Your task to perform on an android device: Do I have any events this weekend? Image 0: 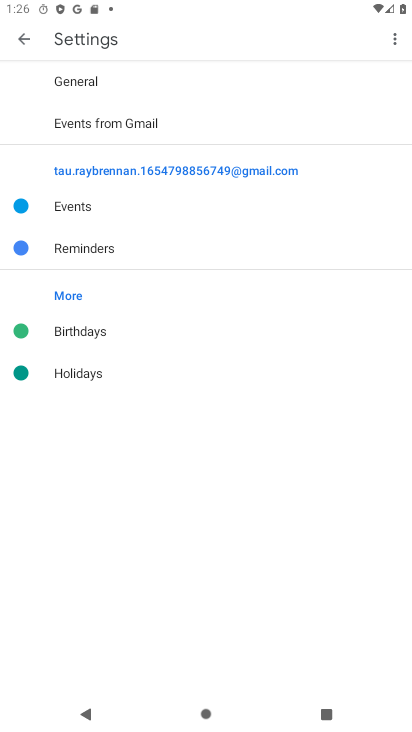
Step 0: press home button
Your task to perform on an android device: Do I have any events this weekend? Image 1: 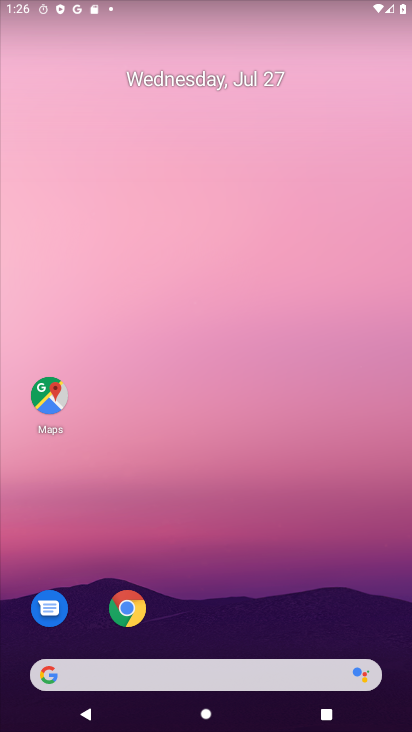
Step 1: drag from (194, 602) to (183, 107)
Your task to perform on an android device: Do I have any events this weekend? Image 2: 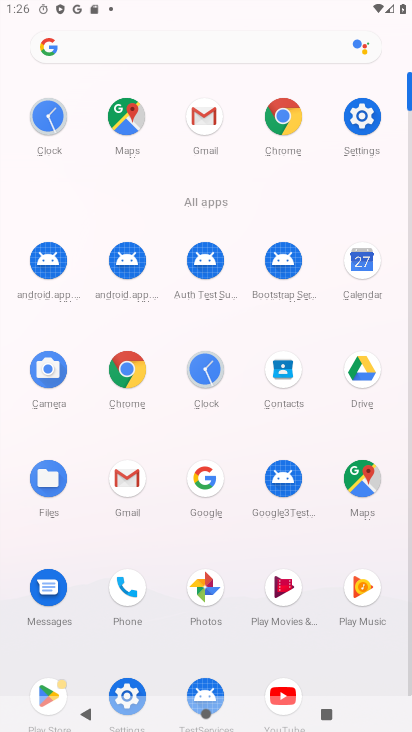
Step 2: click (360, 267)
Your task to perform on an android device: Do I have any events this weekend? Image 3: 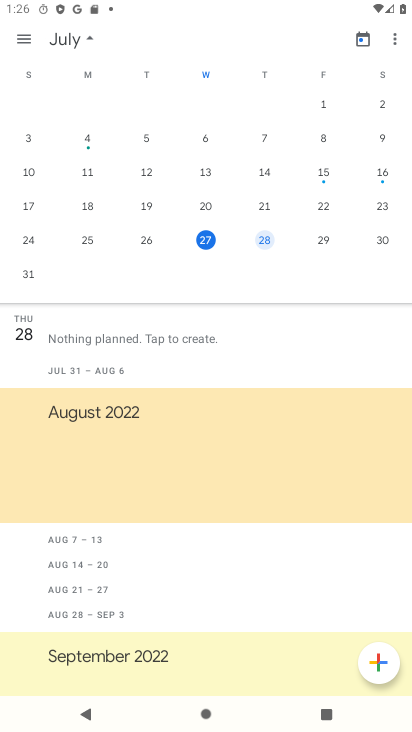
Step 3: click (24, 35)
Your task to perform on an android device: Do I have any events this weekend? Image 4: 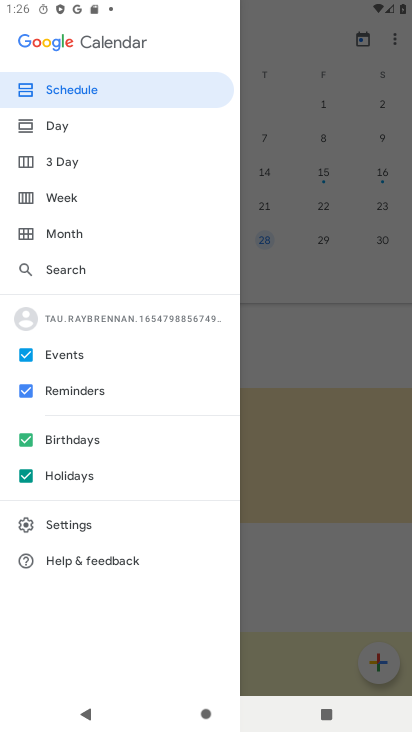
Step 4: click (58, 202)
Your task to perform on an android device: Do I have any events this weekend? Image 5: 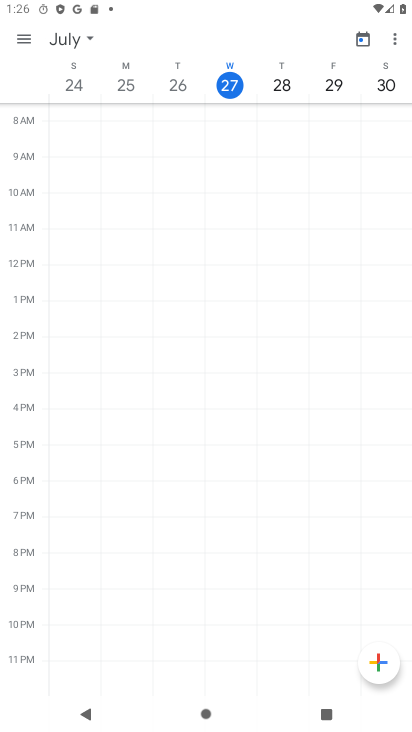
Step 5: task complete